Your task to perform on an android device: Turn on the flashlight Image 0: 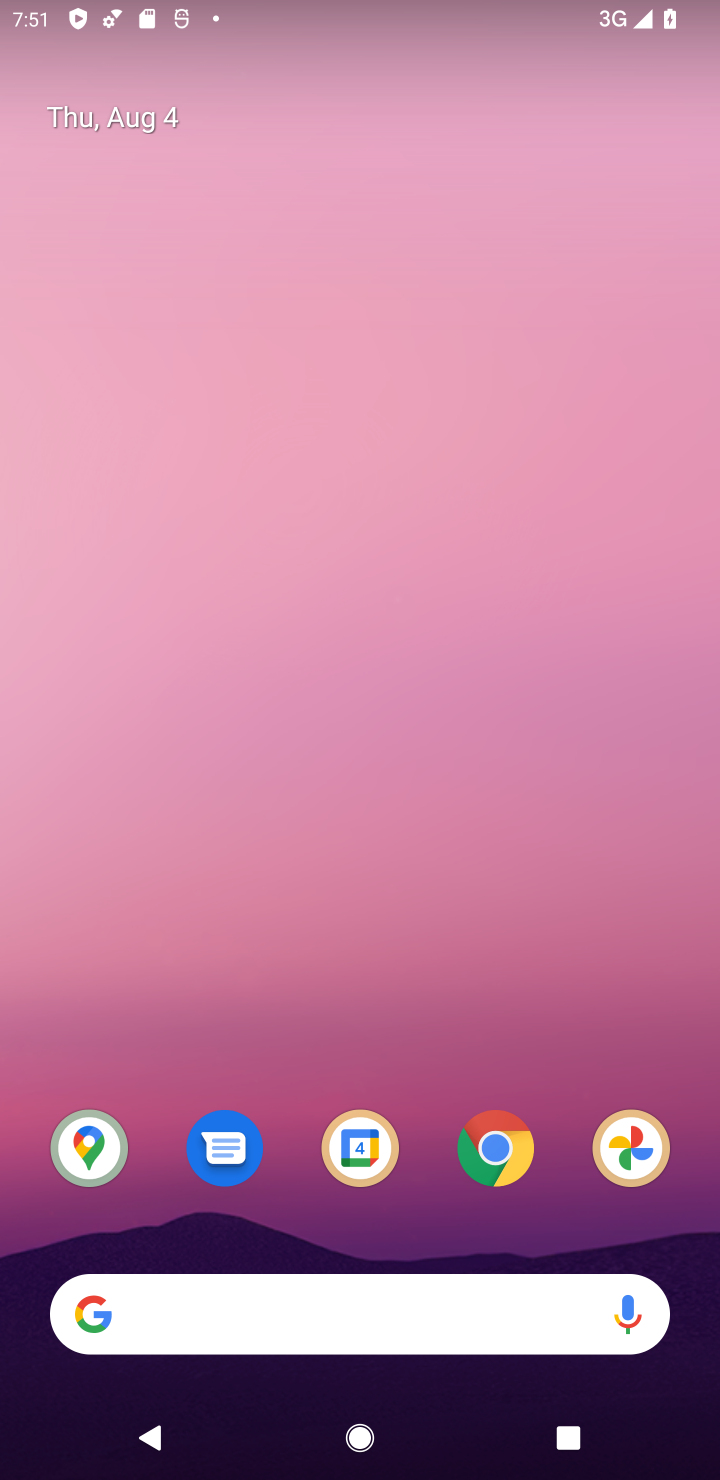
Step 0: drag from (449, 933) to (429, 36)
Your task to perform on an android device: Turn on the flashlight Image 1: 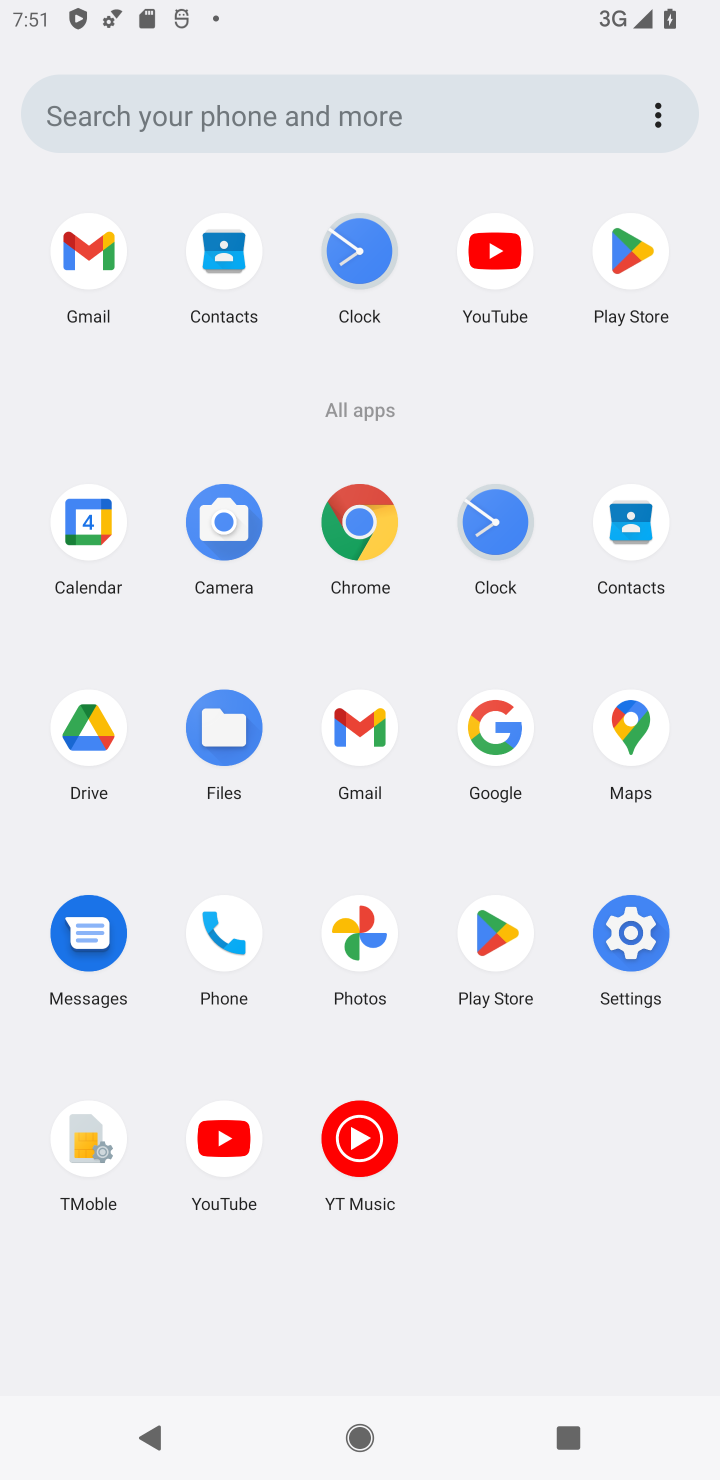
Step 1: drag from (394, 8) to (588, 1286)
Your task to perform on an android device: Turn on the flashlight Image 2: 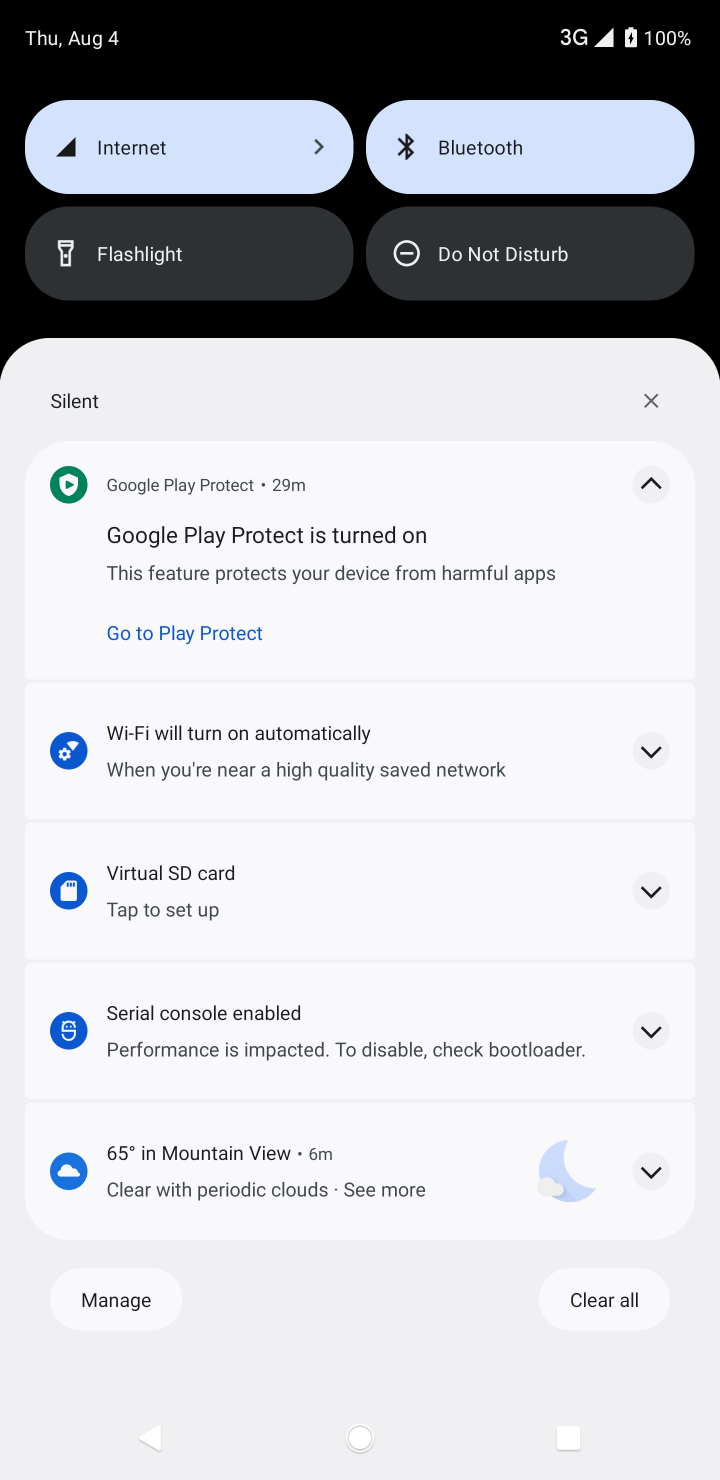
Step 2: drag from (366, 301) to (454, 1397)
Your task to perform on an android device: Turn on the flashlight Image 3: 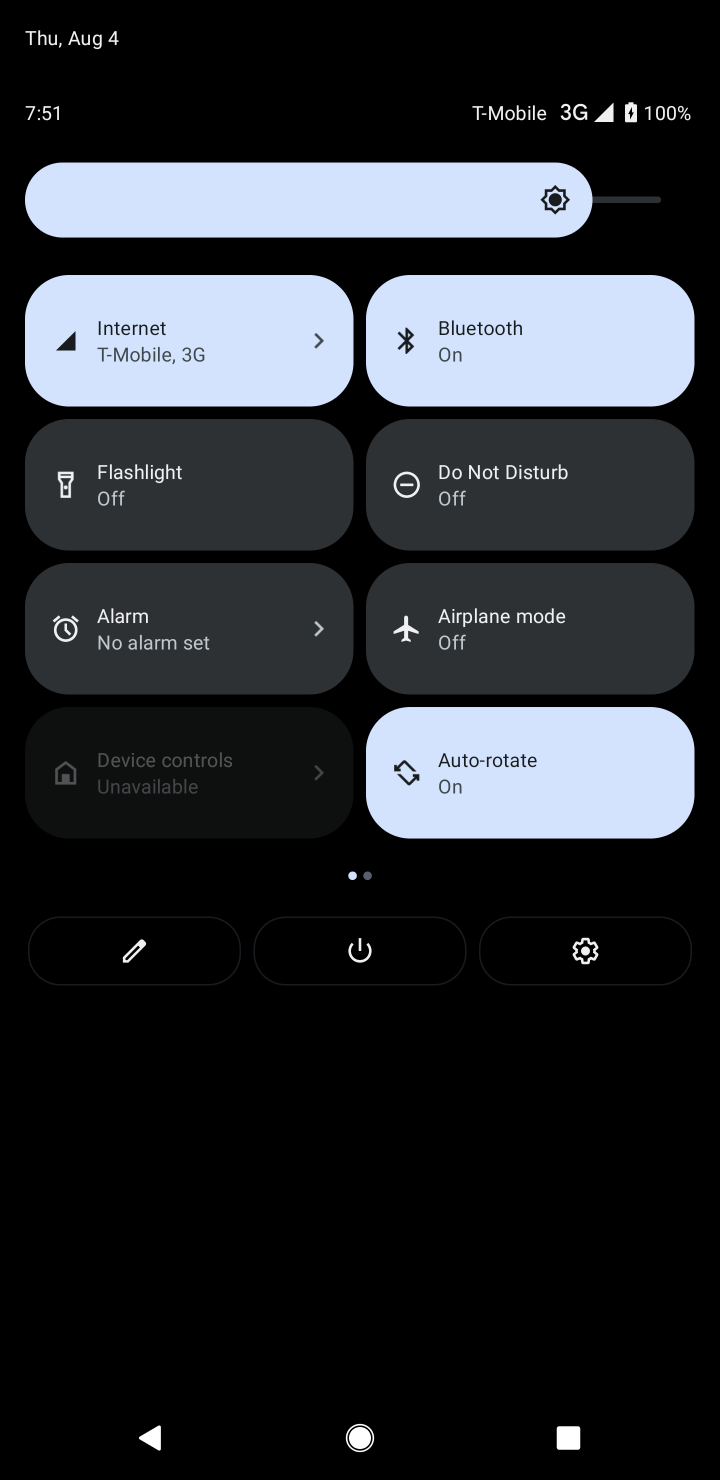
Step 3: click (163, 511)
Your task to perform on an android device: Turn on the flashlight Image 4: 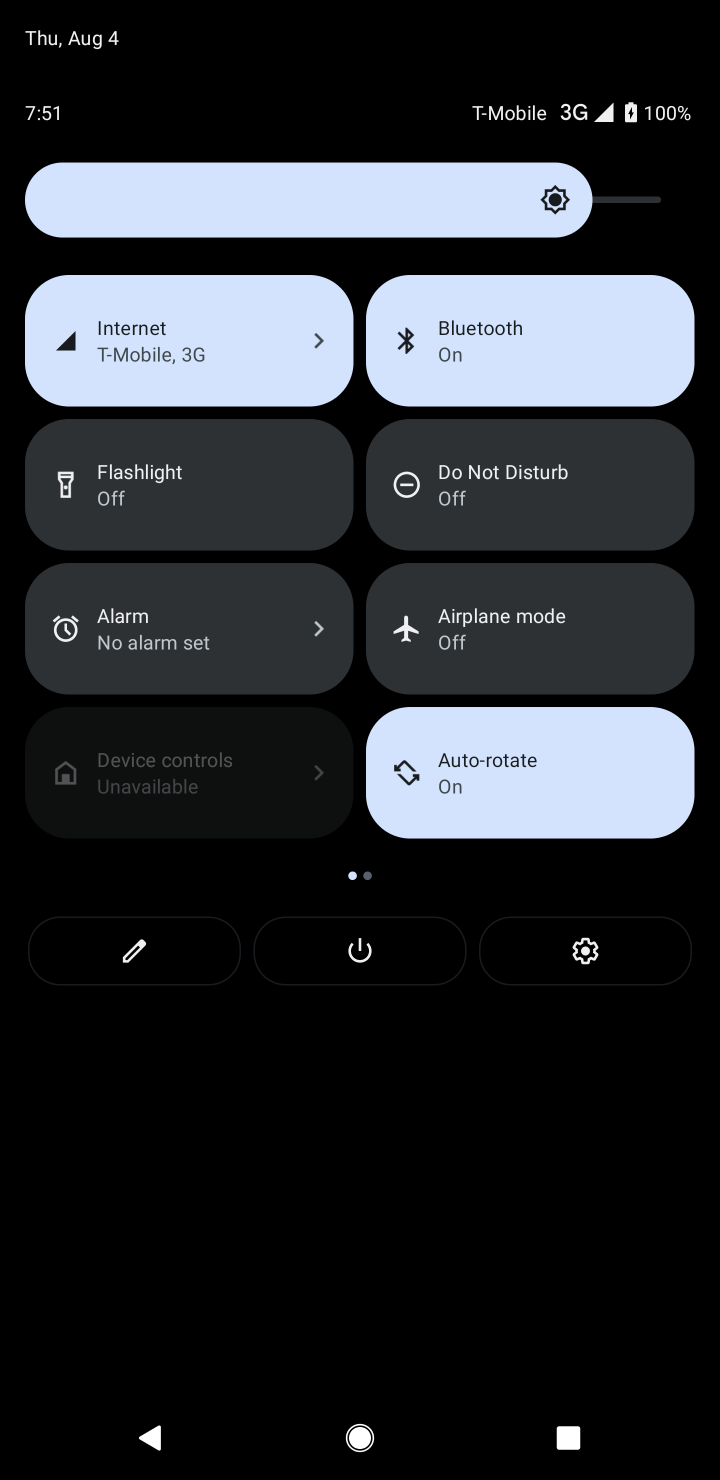
Step 4: click (127, 483)
Your task to perform on an android device: Turn on the flashlight Image 5: 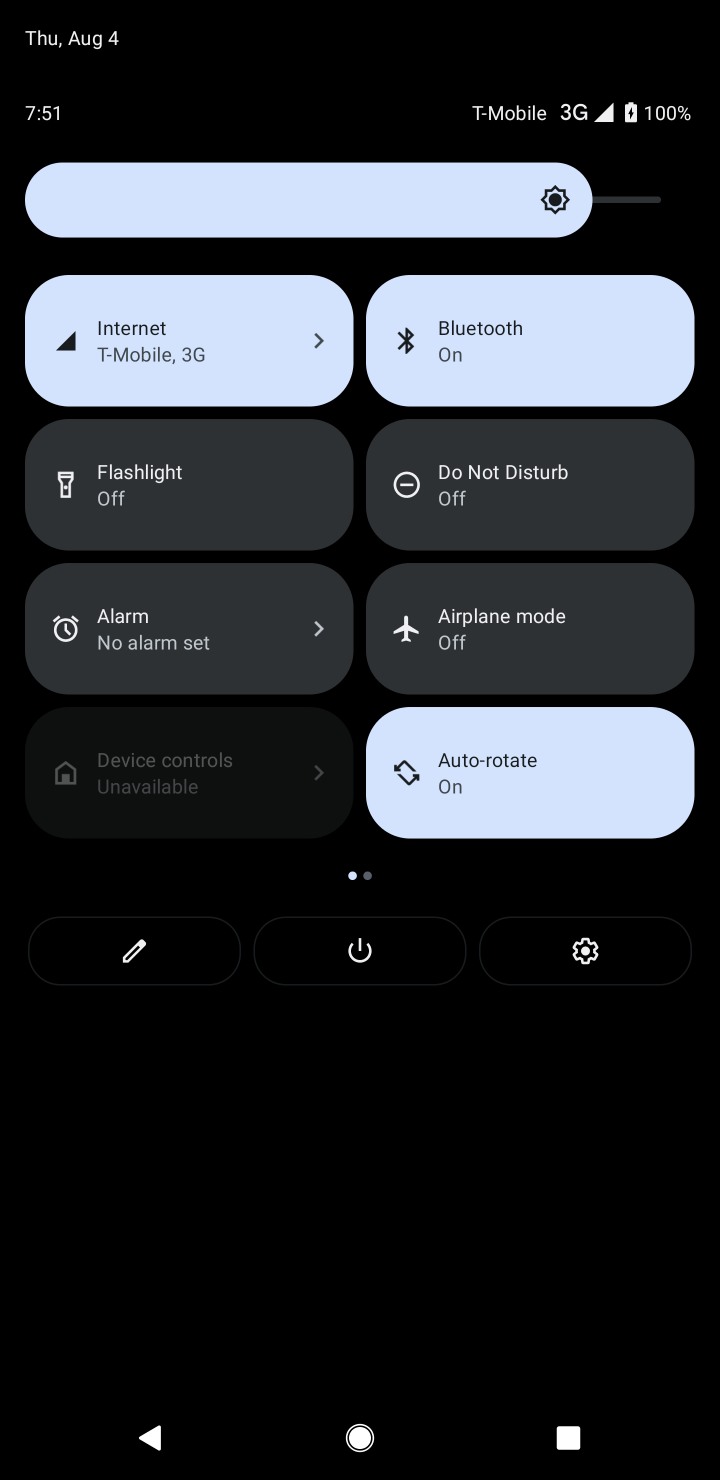
Step 5: task complete